Your task to perform on an android device: Go to Wikipedia Image 0: 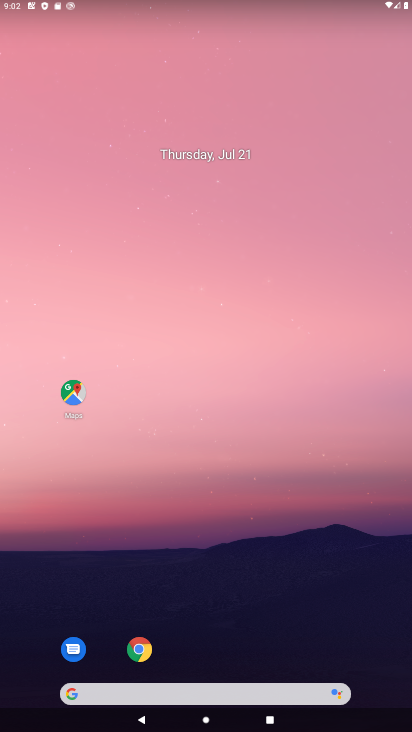
Step 0: click (140, 649)
Your task to perform on an android device: Go to Wikipedia Image 1: 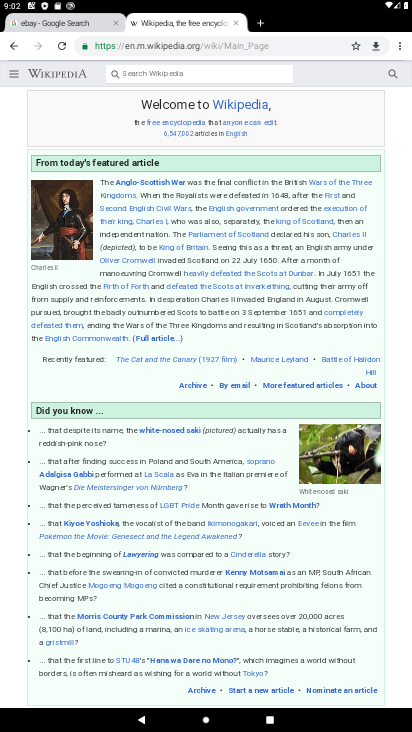
Step 1: click (235, 104)
Your task to perform on an android device: Go to Wikipedia Image 2: 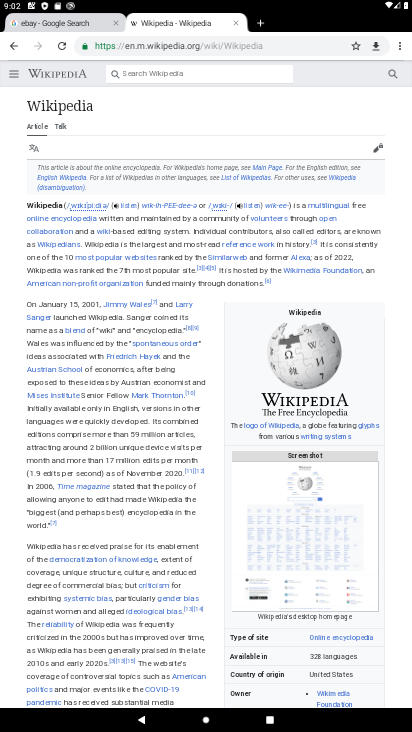
Step 2: task complete